Your task to perform on an android device: turn on the 12-hour format for clock Image 0: 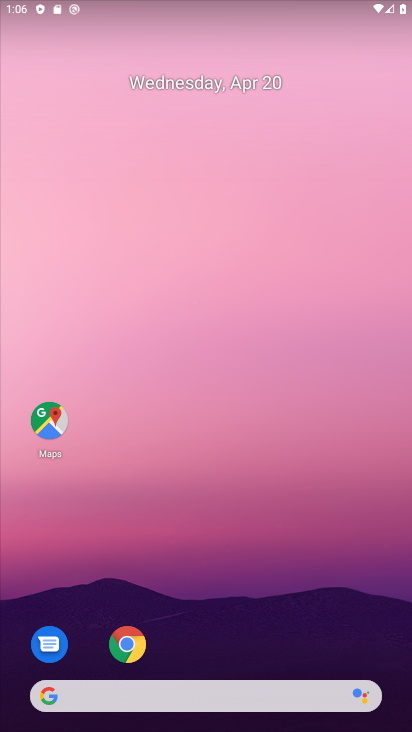
Step 0: drag from (226, 597) to (283, 213)
Your task to perform on an android device: turn on the 12-hour format for clock Image 1: 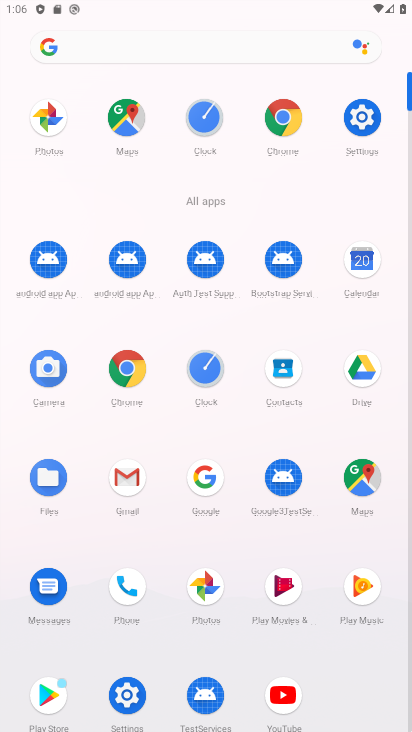
Step 1: click (215, 378)
Your task to perform on an android device: turn on the 12-hour format for clock Image 2: 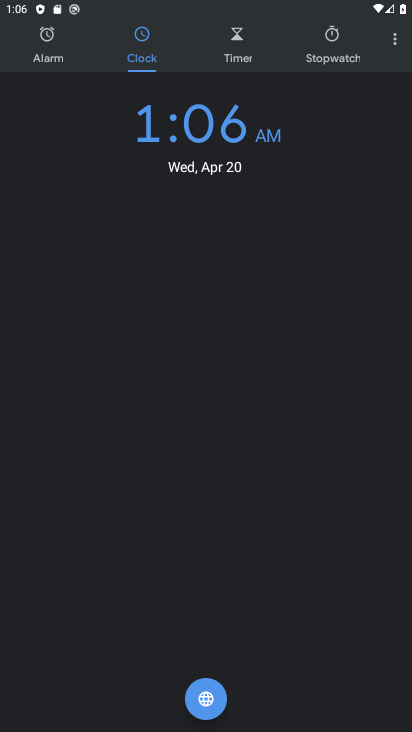
Step 2: click (392, 38)
Your task to perform on an android device: turn on the 12-hour format for clock Image 3: 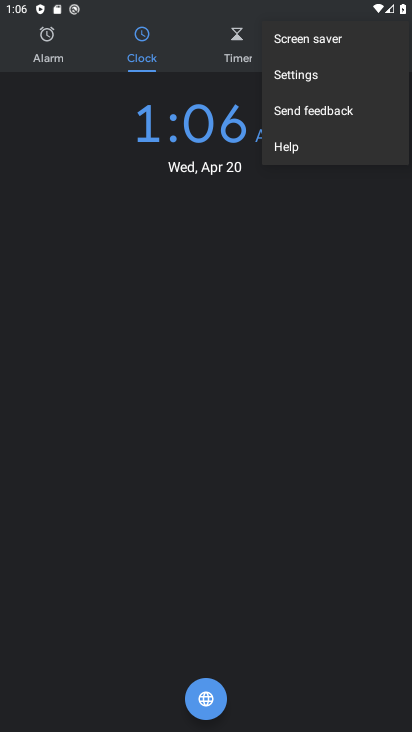
Step 3: click (313, 84)
Your task to perform on an android device: turn on the 12-hour format for clock Image 4: 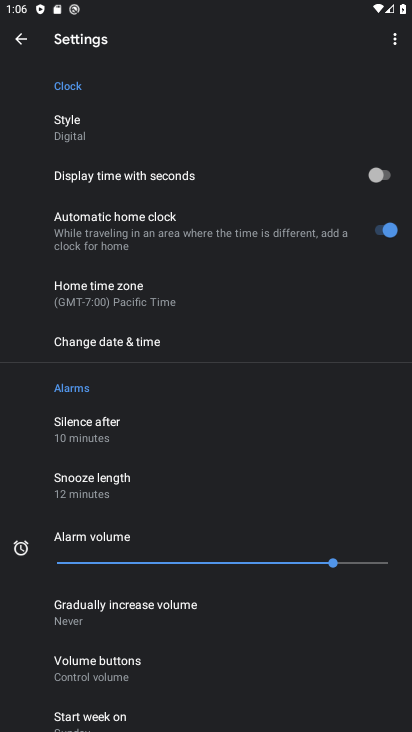
Step 4: drag from (214, 501) to (174, 167)
Your task to perform on an android device: turn on the 12-hour format for clock Image 5: 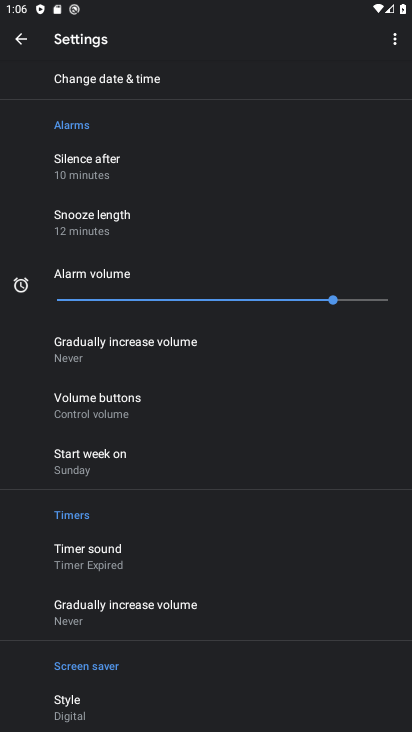
Step 5: click (151, 86)
Your task to perform on an android device: turn on the 12-hour format for clock Image 6: 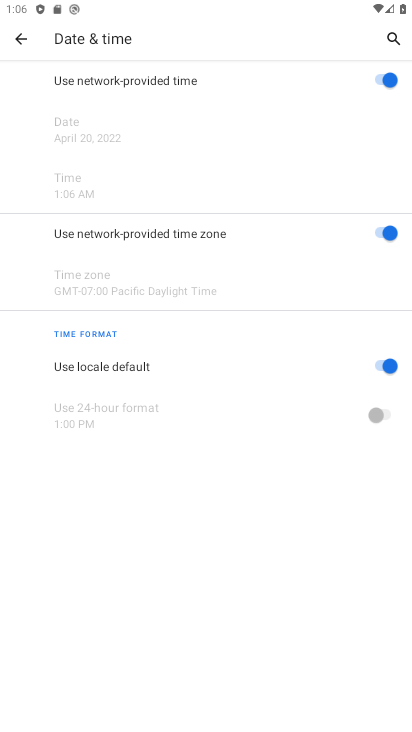
Step 6: click (382, 364)
Your task to perform on an android device: turn on the 12-hour format for clock Image 7: 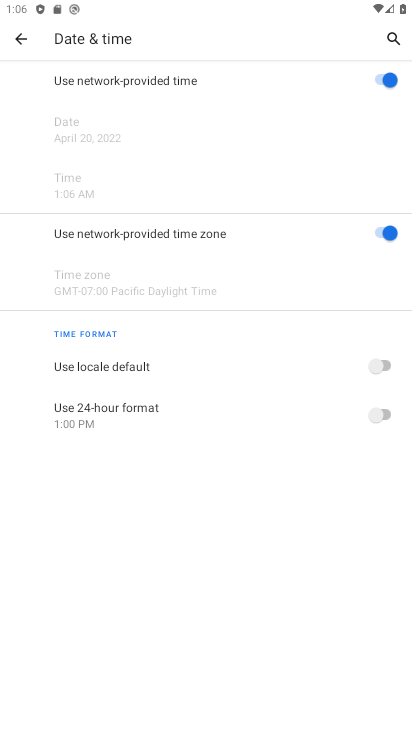
Step 7: task complete